Your task to perform on an android device: Go to internet settings Image 0: 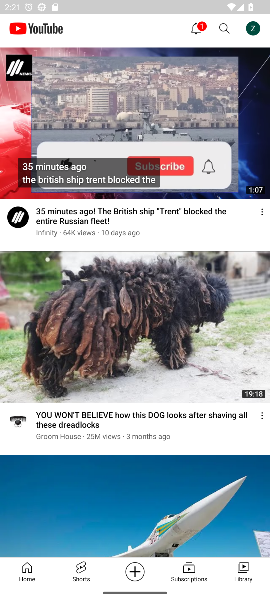
Step 0: press home button
Your task to perform on an android device: Go to internet settings Image 1: 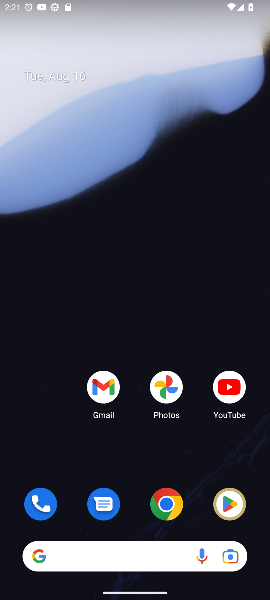
Step 1: drag from (135, 297) to (159, 57)
Your task to perform on an android device: Go to internet settings Image 2: 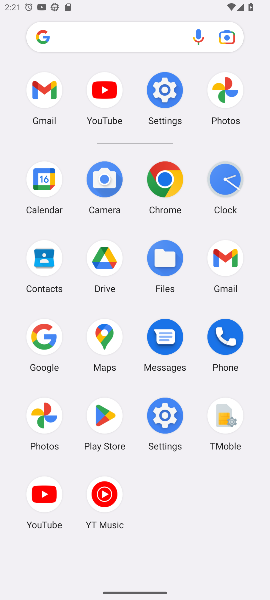
Step 2: click (161, 87)
Your task to perform on an android device: Go to internet settings Image 3: 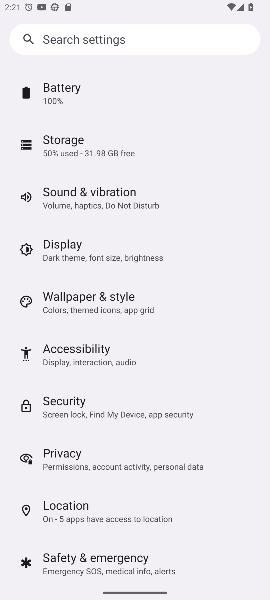
Step 3: drag from (178, 134) to (108, 434)
Your task to perform on an android device: Go to internet settings Image 4: 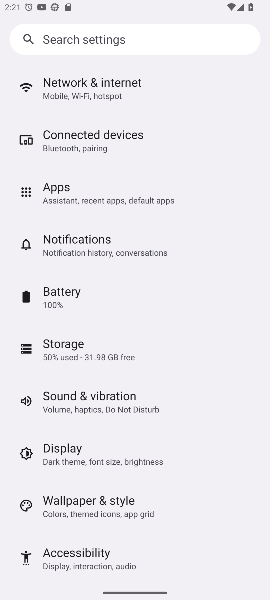
Step 4: click (109, 81)
Your task to perform on an android device: Go to internet settings Image 5: 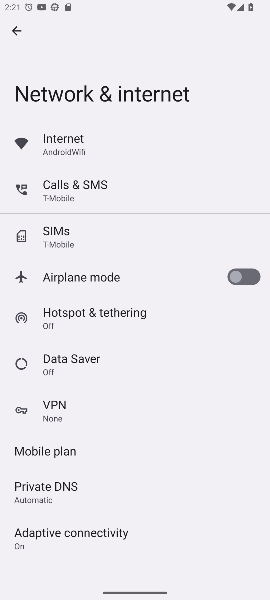
Step 5: click (69, 133)
Your task to perform on an android device: Go to internet settings Image 6: 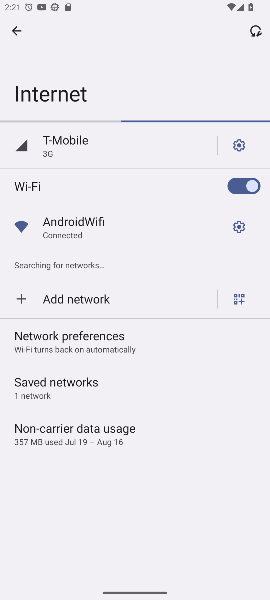
Step 6: task complete